Your task to perform on an android device: Open settings on Google Maps Image 0: 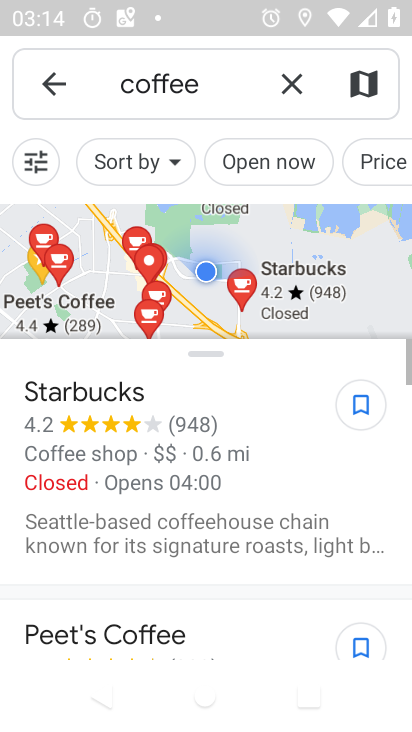
Step 0: press home button
Your task to perform on an android device: Open settings on Google Maps Image 1: 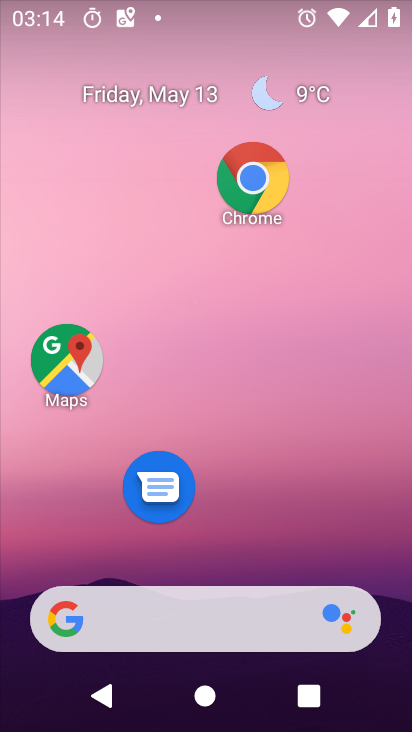
Step 1: click (37, 364)
Your task to perform on an android device: Open settings on Google Maps Image 2: 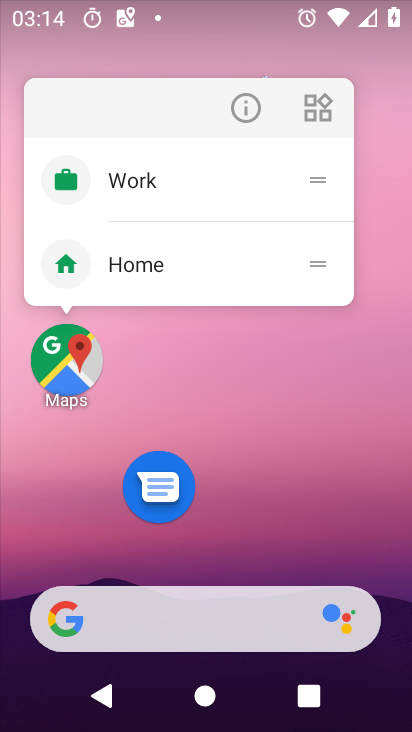
Step 2: click (67, 374)
Your task to perform on an android device: Open settings on Google Maps Image 3: 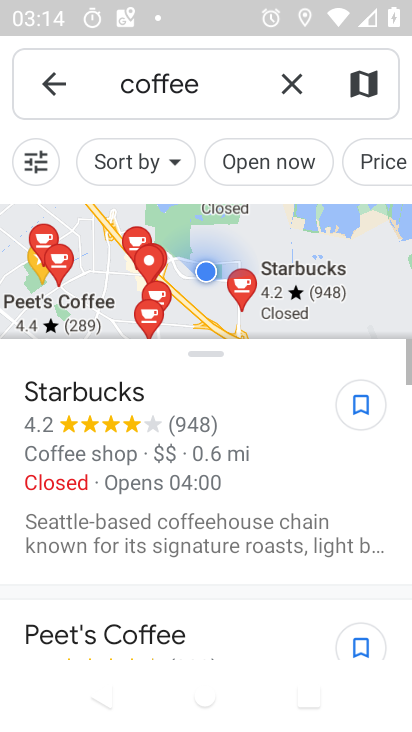
Step 3: press back button
Your task to perform on an android device: Open settings on Google Maps Image 4: 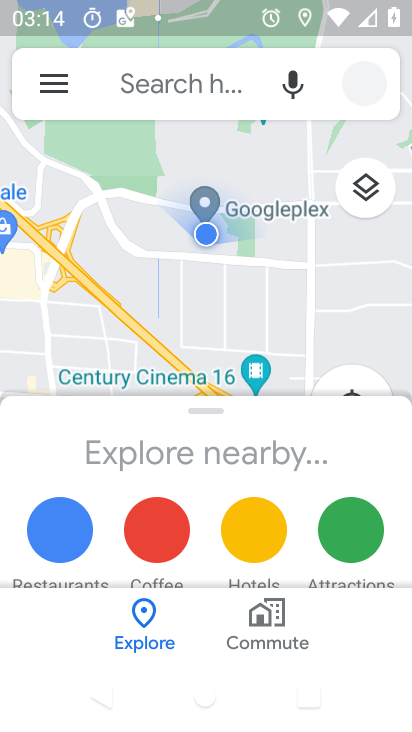
Step 4: click (52, 87)
Your task to perform on an android device: Open settings on Google Maps Image 5: 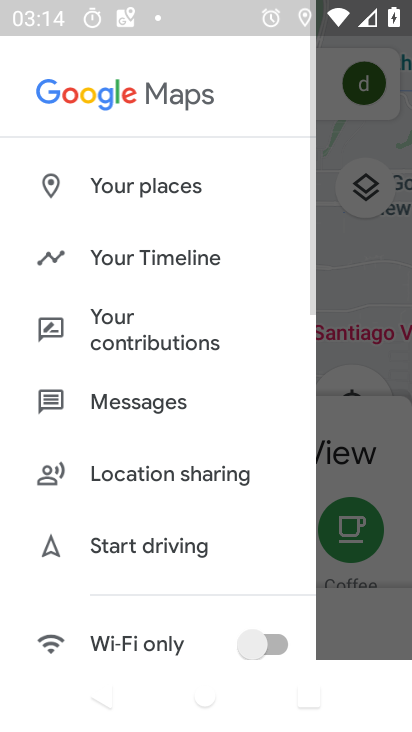
Step 5: drag from (147, 614) to (151, 300)
Your task to perform on an android device: Open settings on Google Maps Image 6: 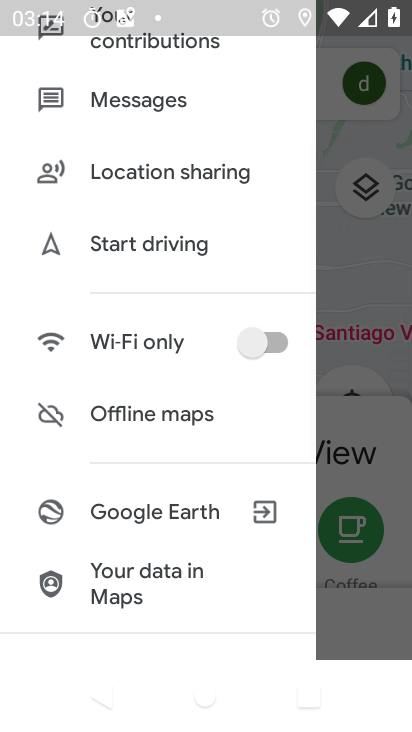
Step 6: drag from (165, 601) to (174, 292)
Your task to perform on an android device: Open settings on Google Maps Image 7: 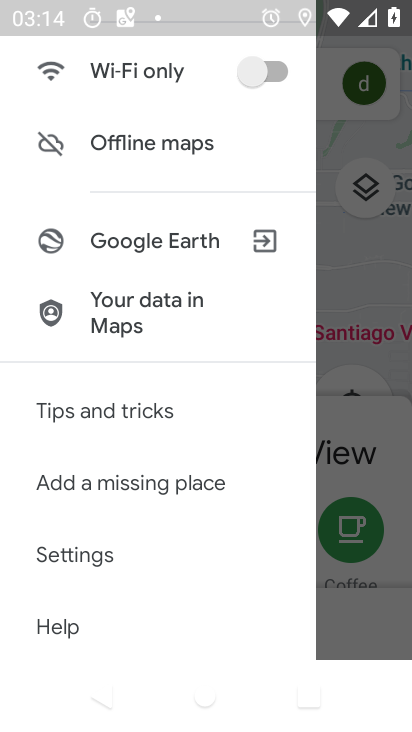
Step 7: click (100, 548)
Your task to perform on an android device: Open settings on Google Maps Image 8: 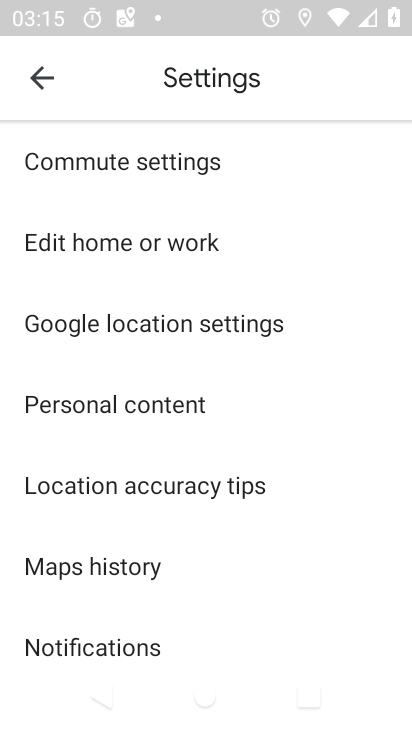
Step 8: task complete